Your task to perform on an android device: turn vacation reply on in the gmail app Image 0: 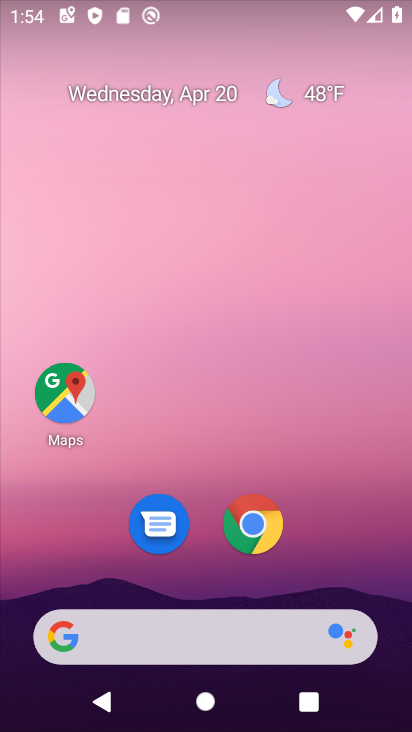
Step 0: drag from (372, 556) to (350, 79)
Your task to perform on an android device: turn vacation reply on in the gmail app Image 1: 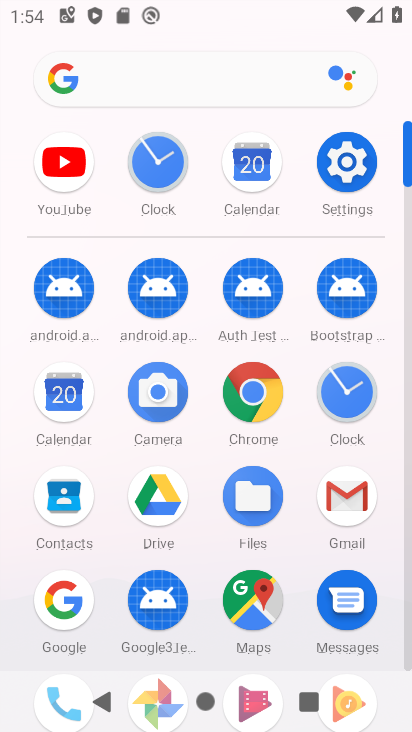
Step 1: click (352, 494)
Your task to perform on an android device: turn vacation reply on in the gmail app Image 2: 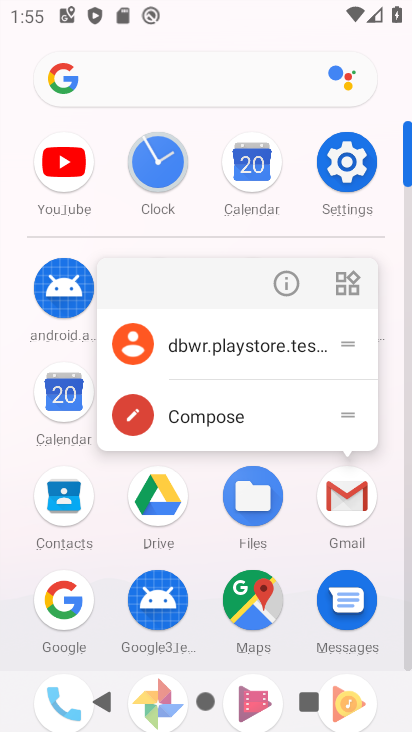
Step 2: click (352, 497)
Your task to perform on an android device: turn vacation reply on in the gmail app Image 3: 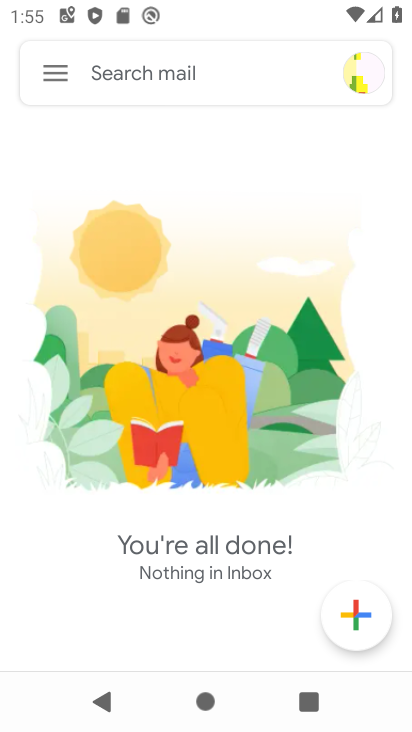
Step 3: click (51, 71)
Your task to perform on an android device: turn vacation reply on in the gmail app Image 4: 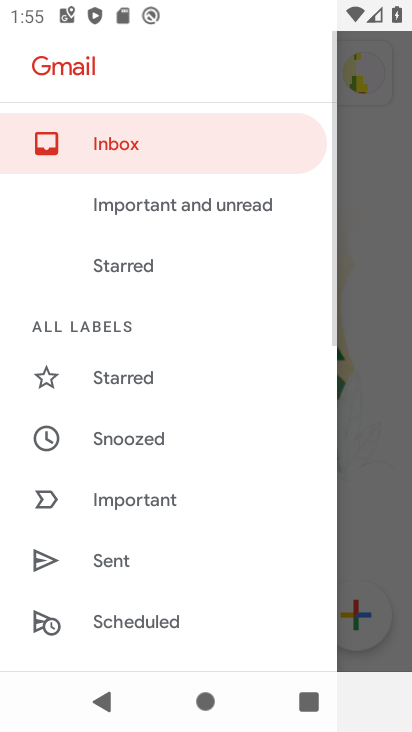
Step 4: drag from (250, 600) to (238, 66)
Your task to perform on an android device: turn vacation reply on in the gmail app Image 5: 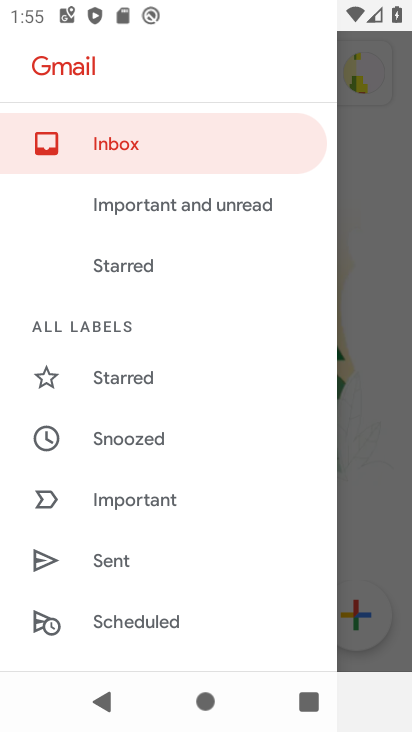
Step 5: drag from (153, 576) to (155, 109)
Your task to perform on an android device: turn vacation reply on in the gmail app Image 6: 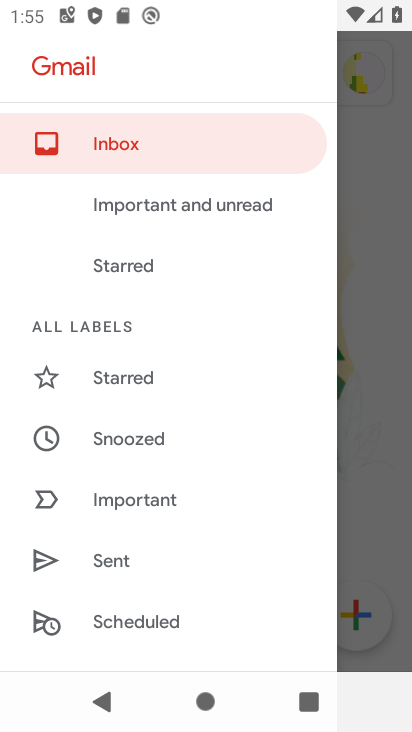
Step 6: drag from (154, 591) to (159, 65)
Your task to perform on an android device: turn vacation reply on in the gmail app Image 7: 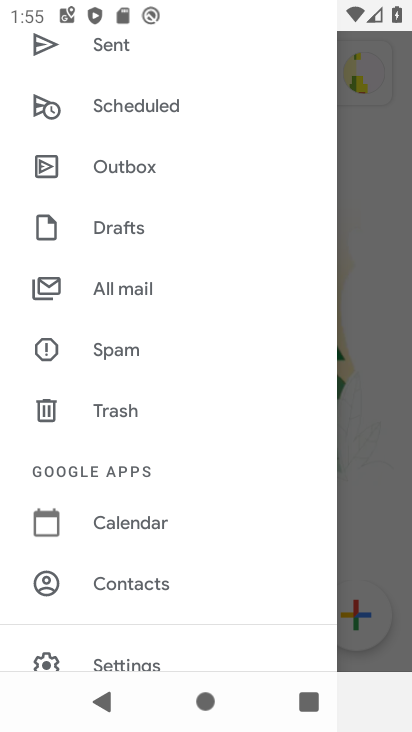
Step 7: drag from (187, 553) to (185, 238)
Your task to perform on an android device: turn vacation reply on in the gmail app Image 8: 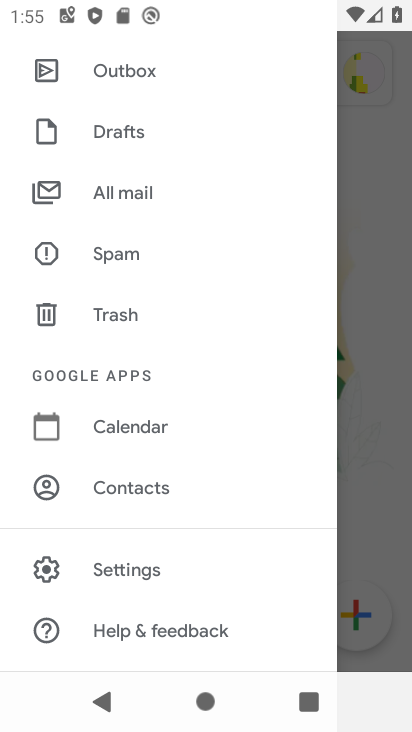
Step 8: click (133, 561)
Your task to perform on an android device: turn vacation reply on in the gmail app Image 9: 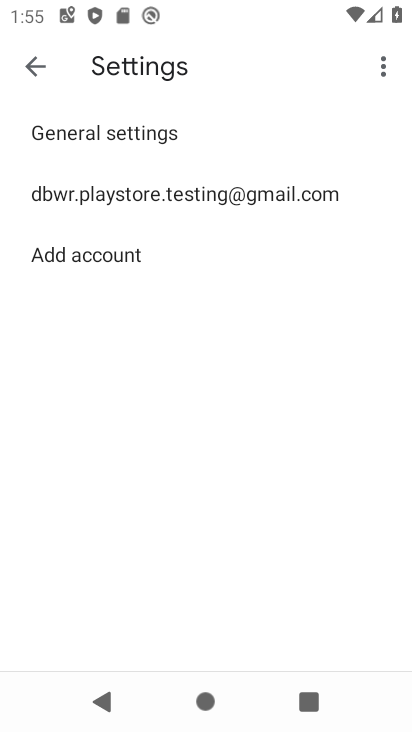
Step 9: click (215, 196)
Your task to perform on an android device: turn vacation reply on in the gmail app Image 10: 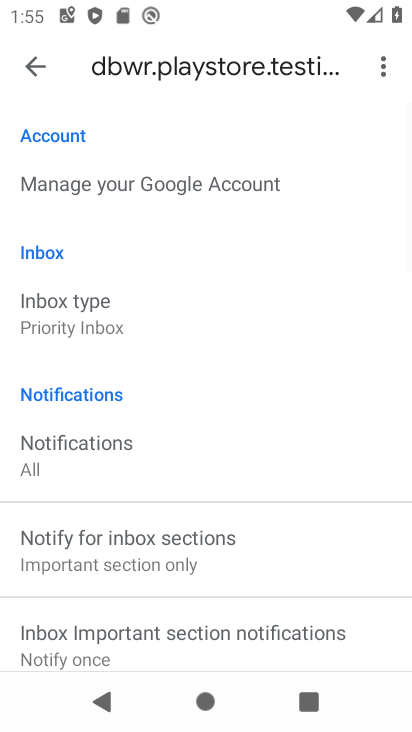
Step 10: drag from (296, 558) to (298, 122)
Your task to perform on an android device: turn vacation reply on in the gmail app Image 11: 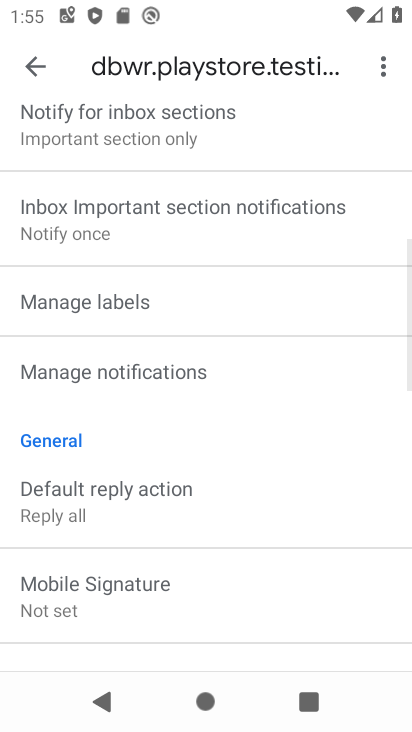
Step 11: drag from (263, 501) to (244, 113)
Your task to perform on an android device: turn vacation reply on in the gmail app Image 12: 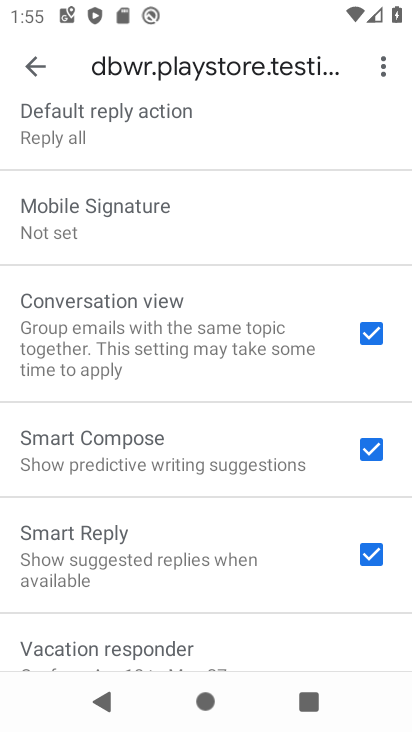
Step 12: drag from (222, 582) to (198, 141)
Your task to perform on an android device: turn vacation reply on in the gmail app Image 13: 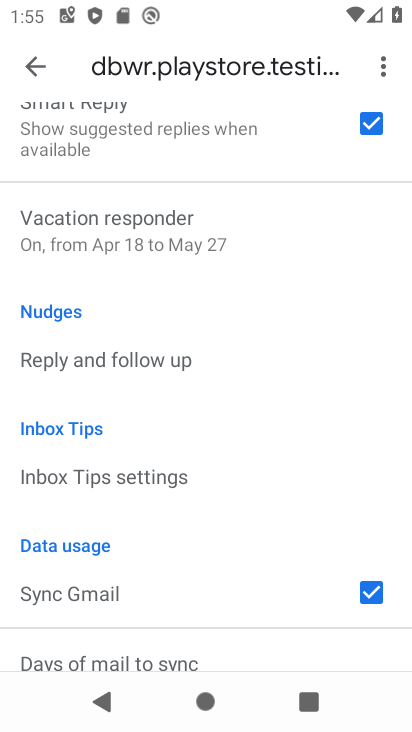
Step 13: click (210, 236)
Your task to perform on an android device: turn vacation reply on in the gmail app Image 14: 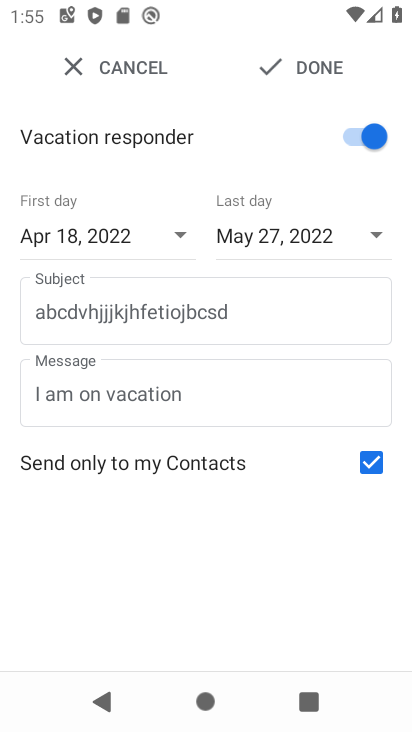
Step 14: task complete